Your task to perform on an android device: Open the web browser Image 0: 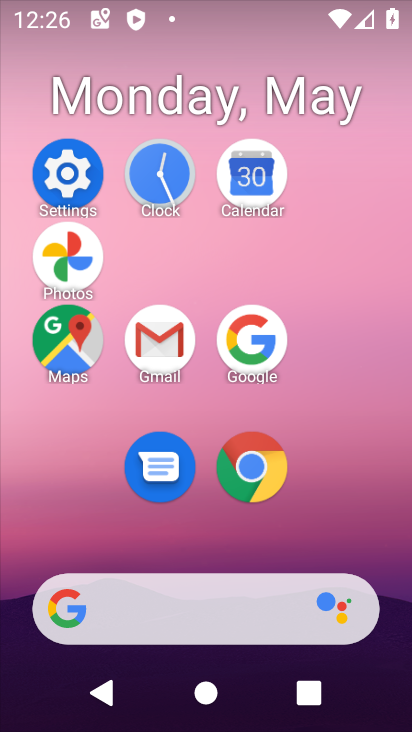
Step 0: click (263, 462)
Your task to perform on an android device: Open the web browser Image 1: 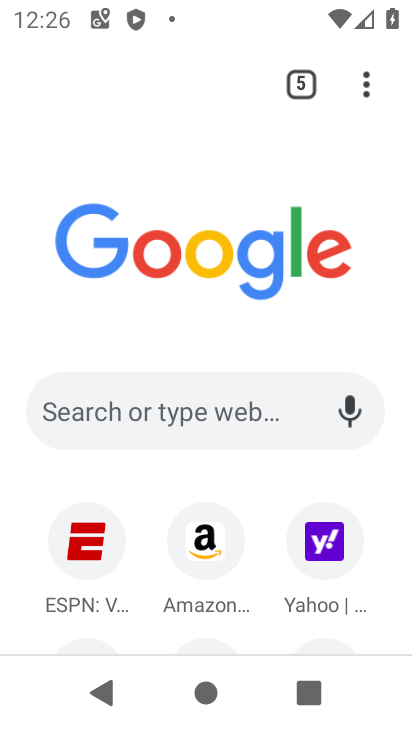
Step 1: task complete